Your task to perform on an android device: open app "AliExpress" (install if not already installed) and go to login screen Image 0: 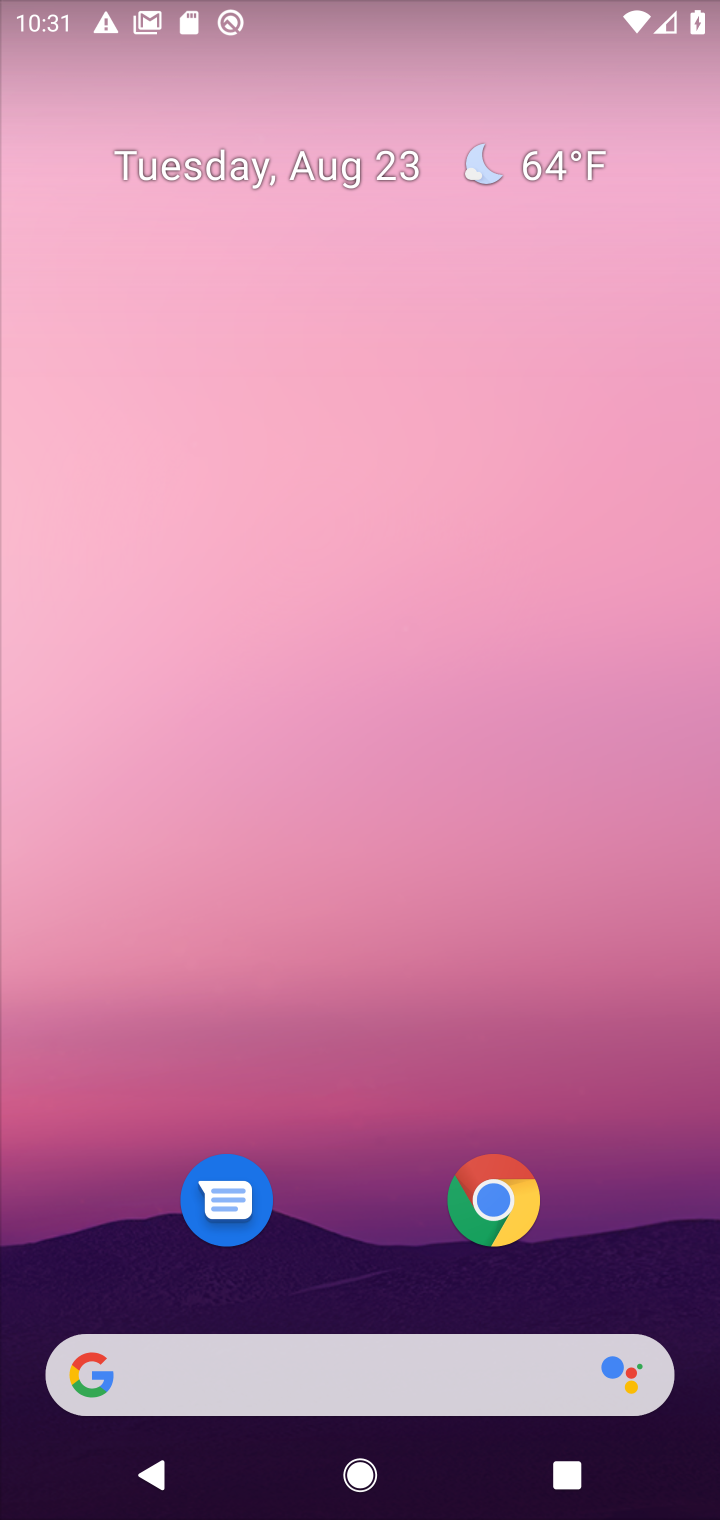
Step 0: drag from (441, 1284) to (471, 140)
Your task to perform on an android device: open app "AliExpress" (install if not already installed) and go to login screen Image 1: 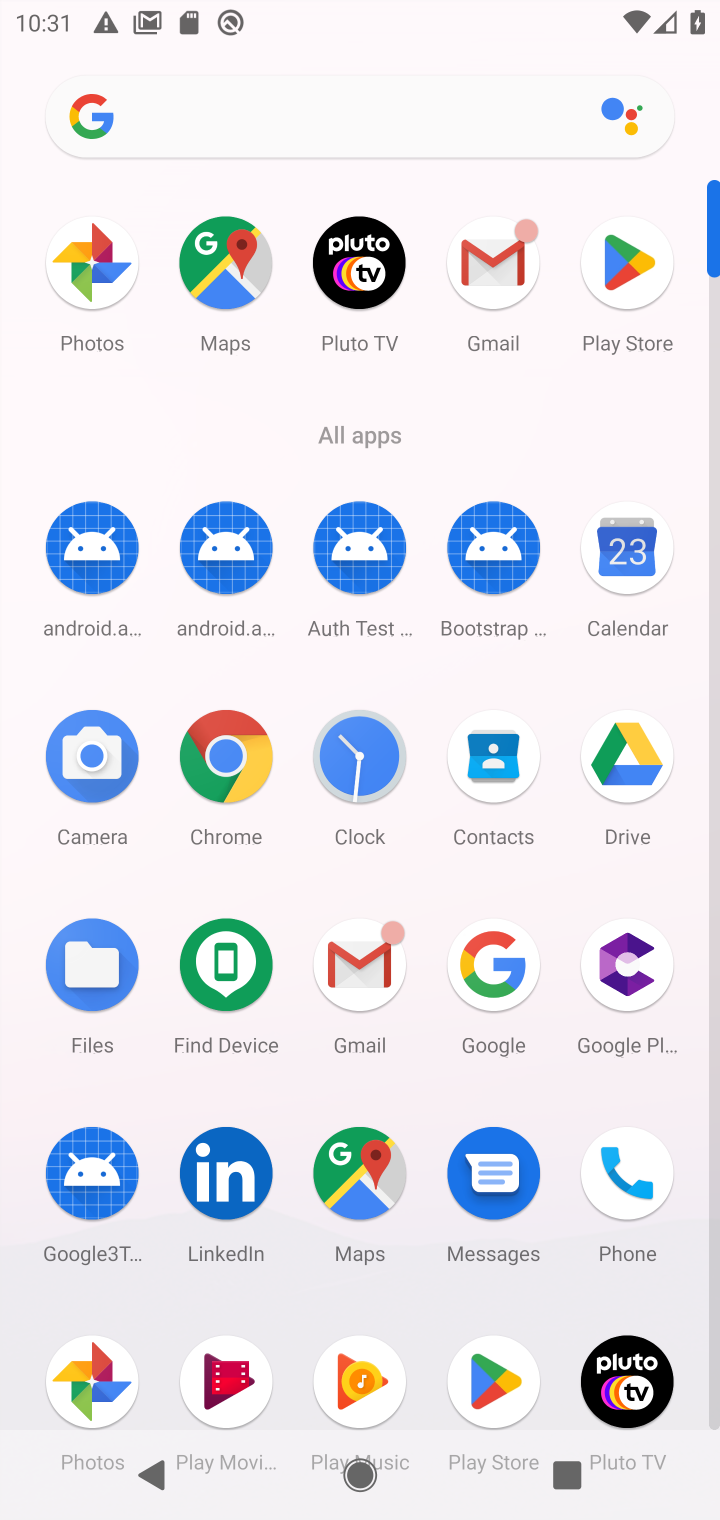
Step 1: click (485, 1369)
Your task to perform on an android device: open app "AliExpress" (install if not already installed) and go to login screen Image 2: 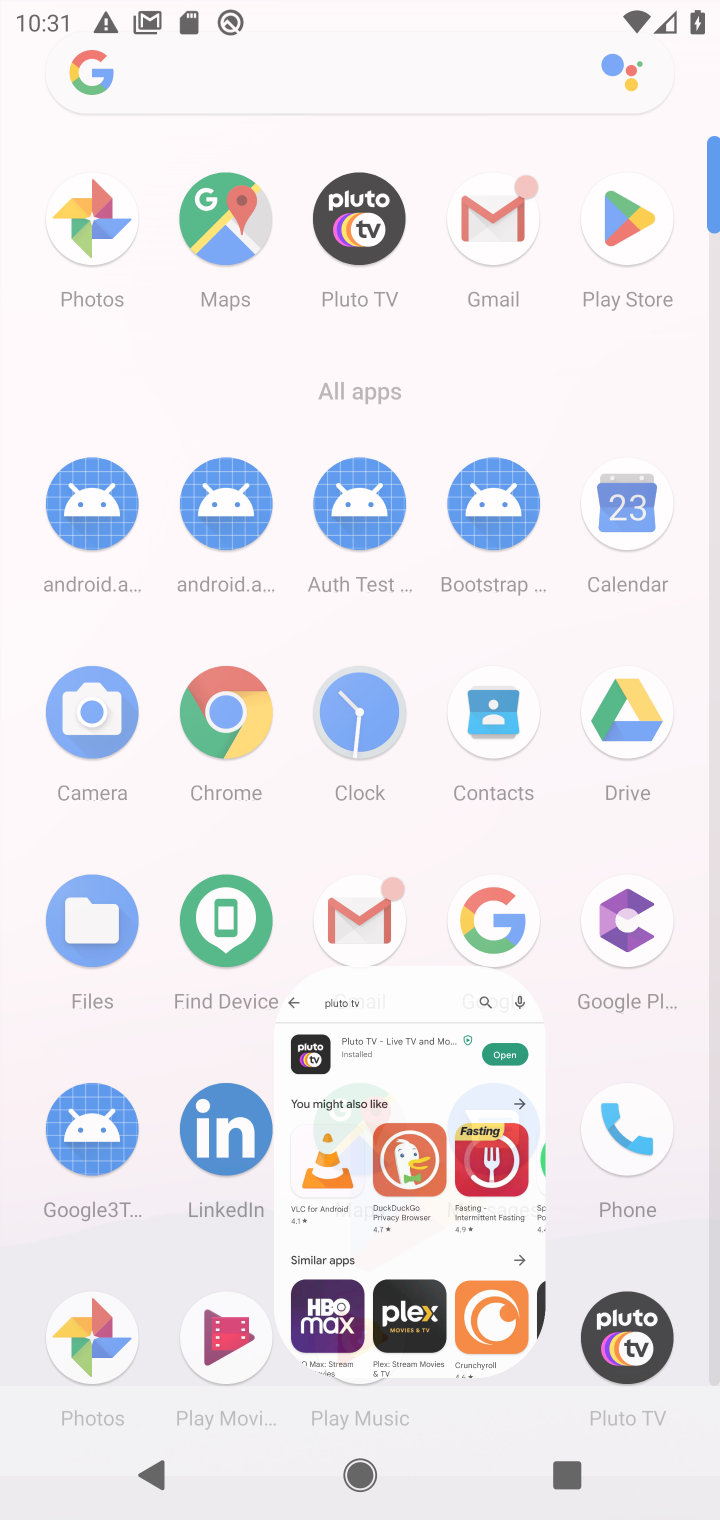
Step 2: click (485, 1369)
Your task to perform on an android device: open app "AliExpress" (install if not already installed) and go to login screen Image 3: 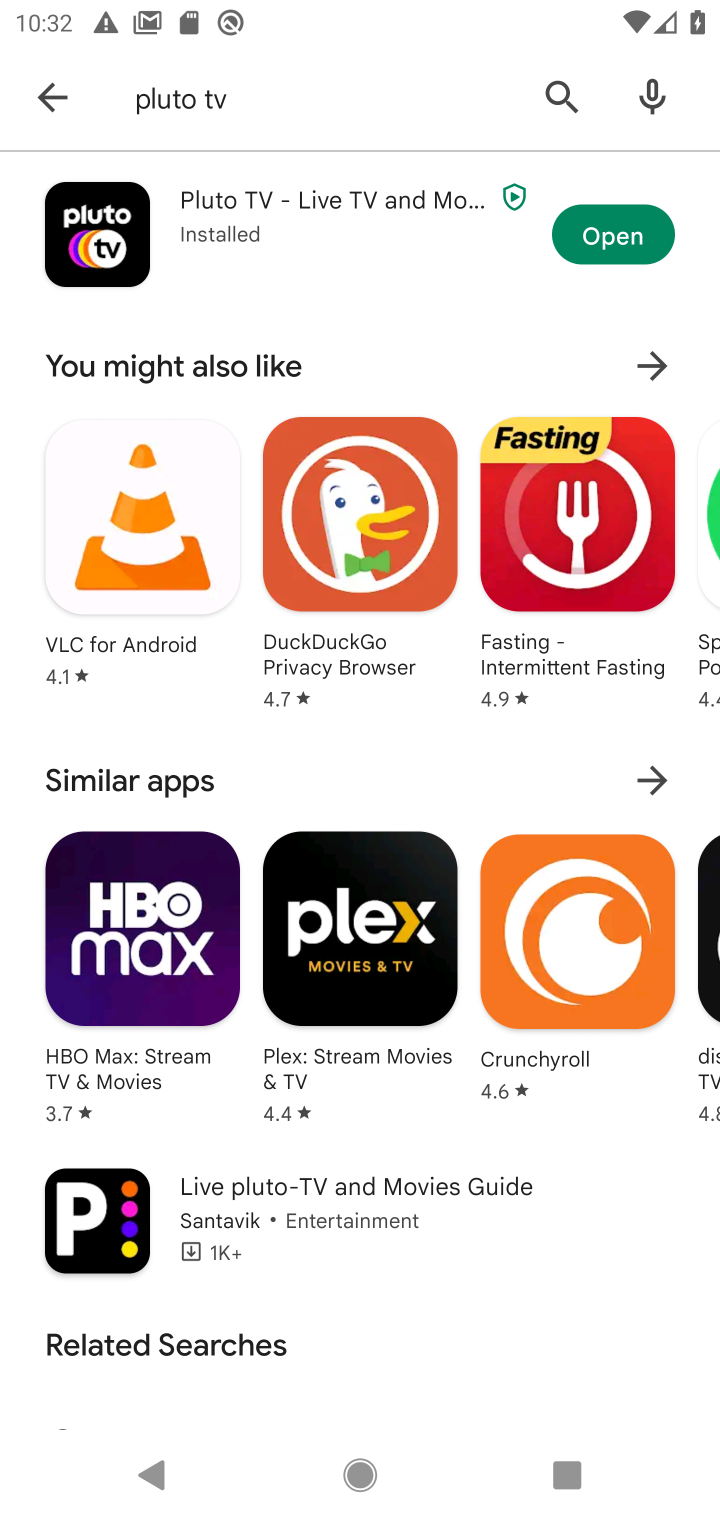
Step 3: click (39, 113)
Your task to perform on an android device: open app "AliExpress" (install if not already installed) and go to login screen Image 4: 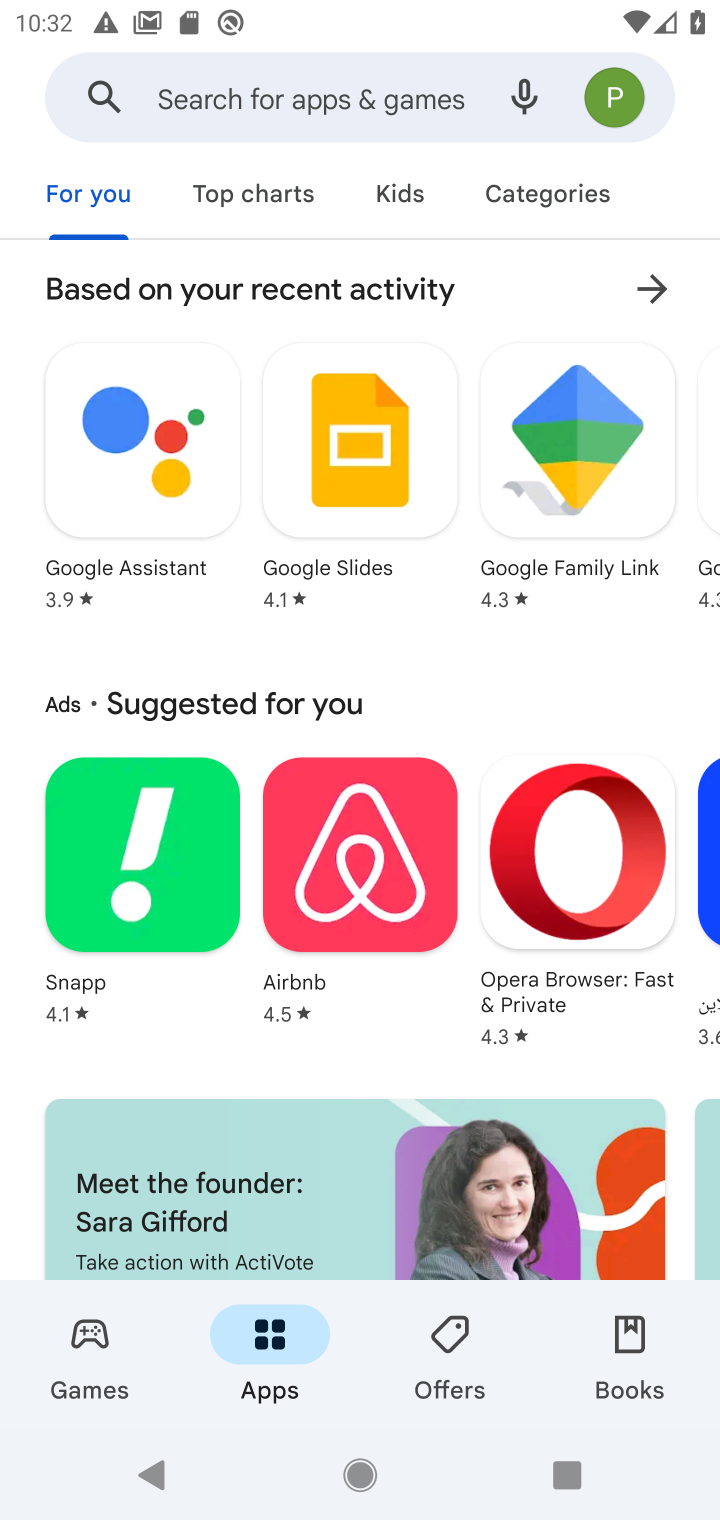
Step 4: click (161, 98)
Your task to perform on an android device: open app "AliExpress" (install if not already installed) and go to login screen Image 5: 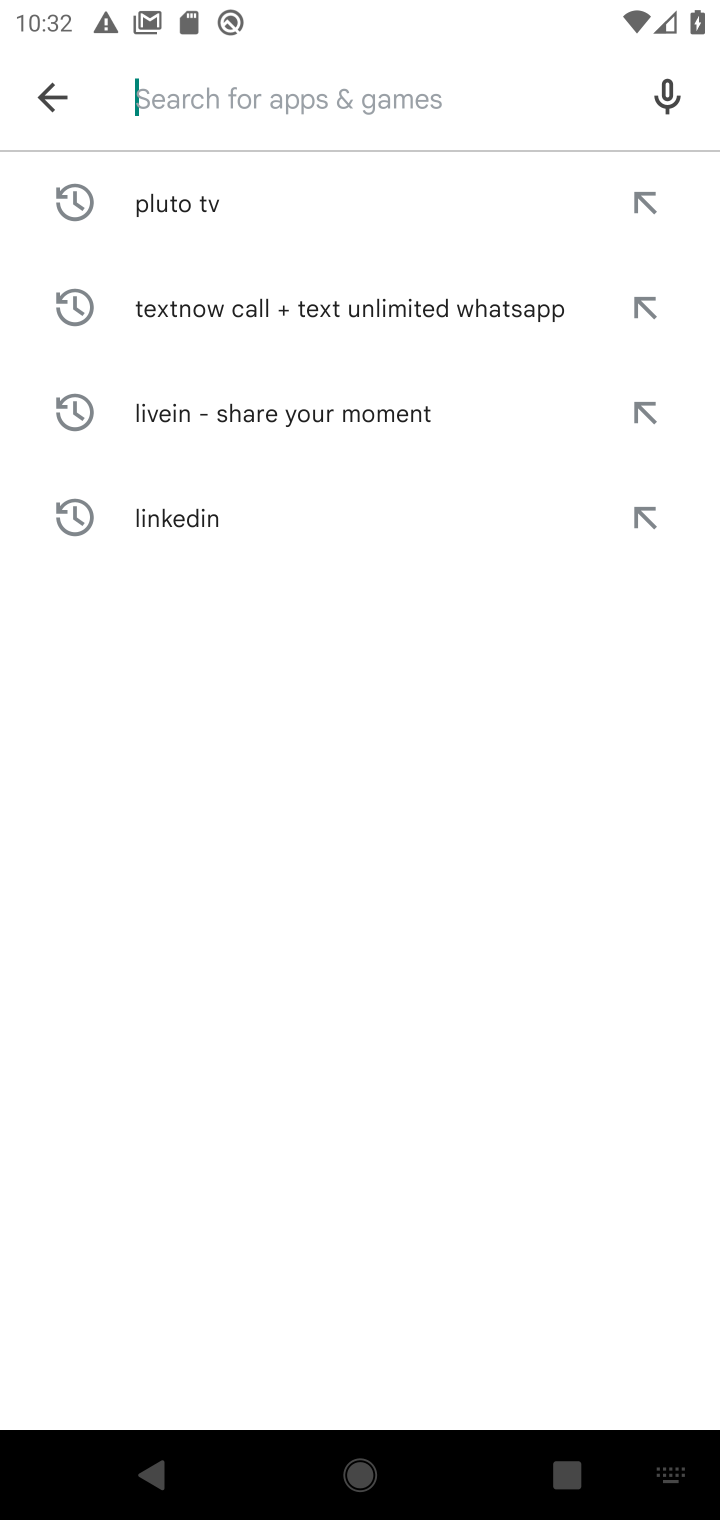
Step 5: type "AliExpress"
Your task to perform on an android device: open app "AliExpress" (install if not already installed) and go to login screen Image 6: 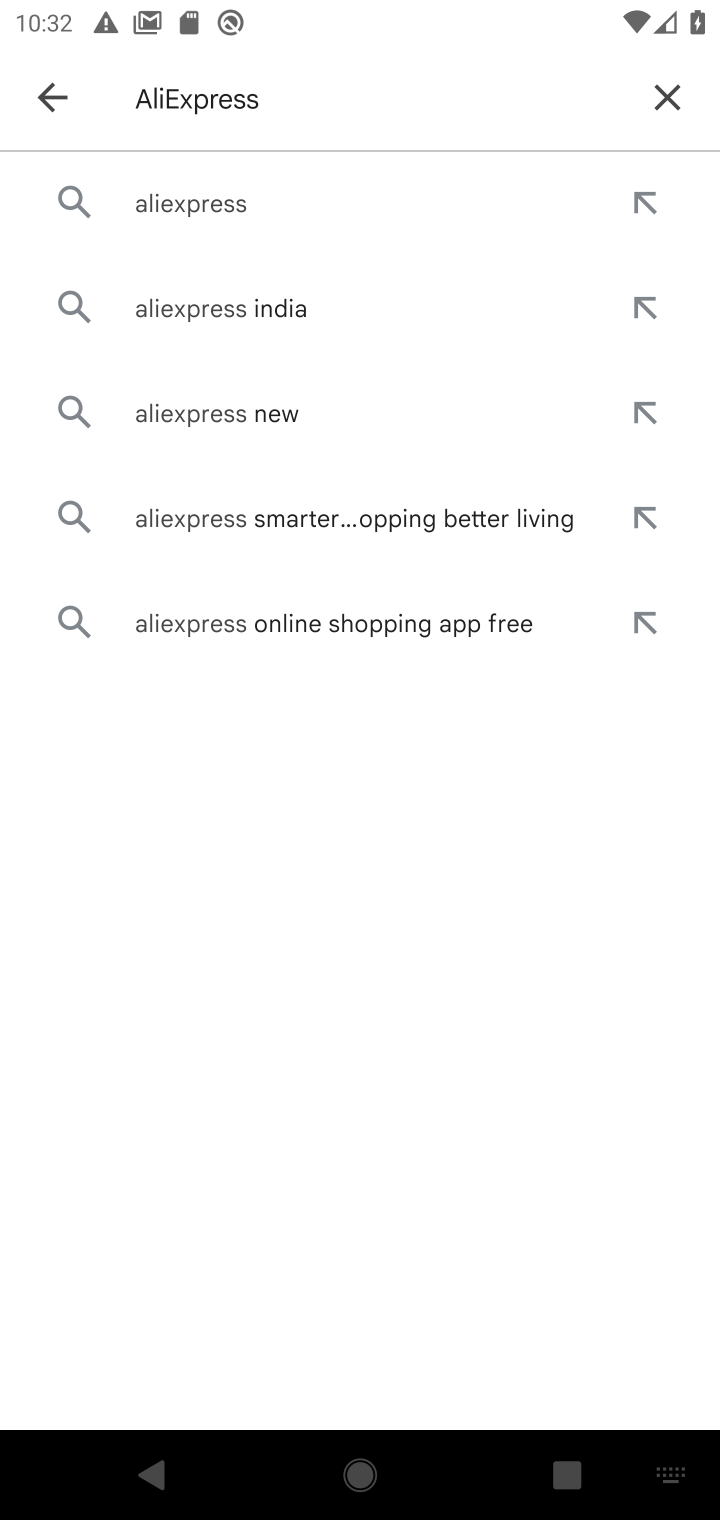
Step 6: click (189, 203)
Your task to perform on an android device: open app "AliExpress" (install if not already installed) and go to login screen Image 7: 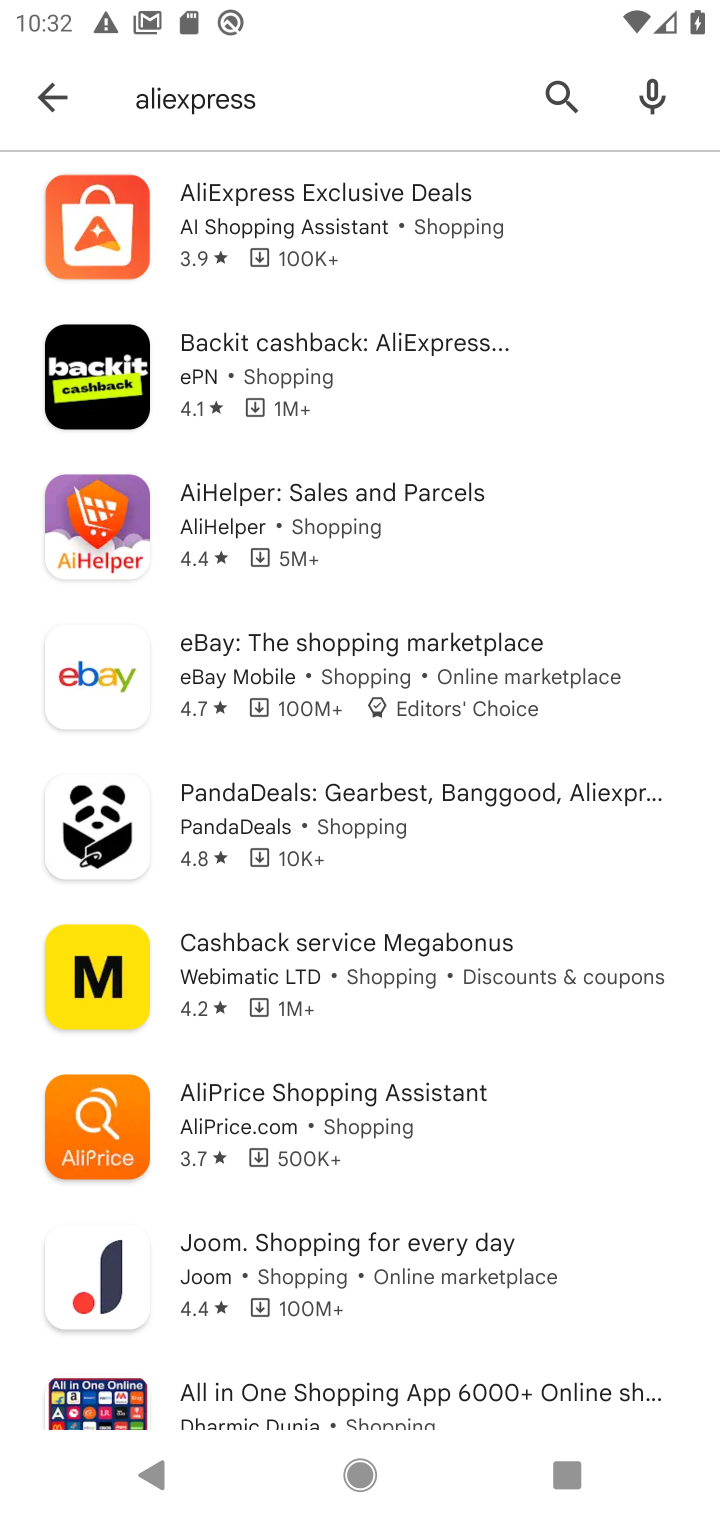
Step 7: task complete